Your task to perform on an android device: Search for macbook pro on costco, select the first entry, and add it to the cart. Image 0: 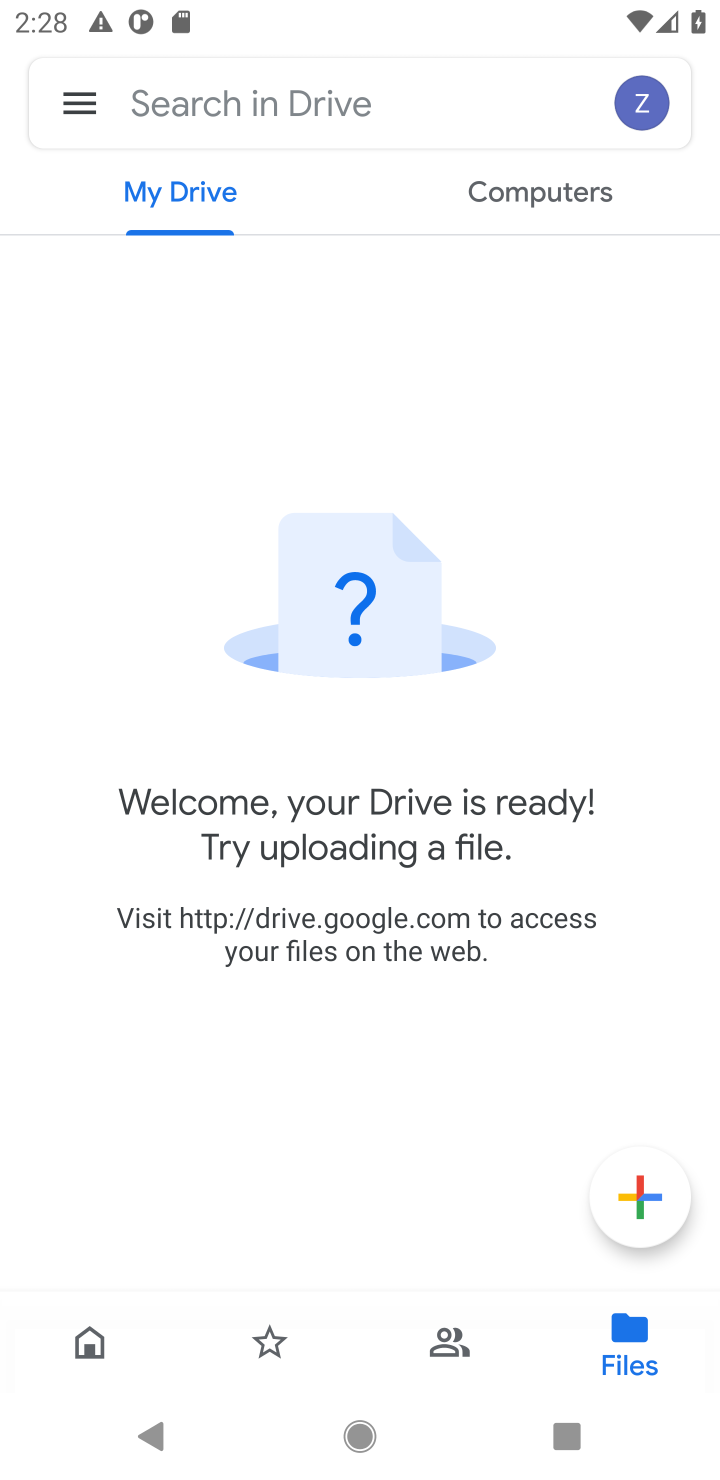
Step 0: press home button
Your task to perform on an android device: Search for macbook pro on costco, select the first entry, and add it to the cart. Image 1: 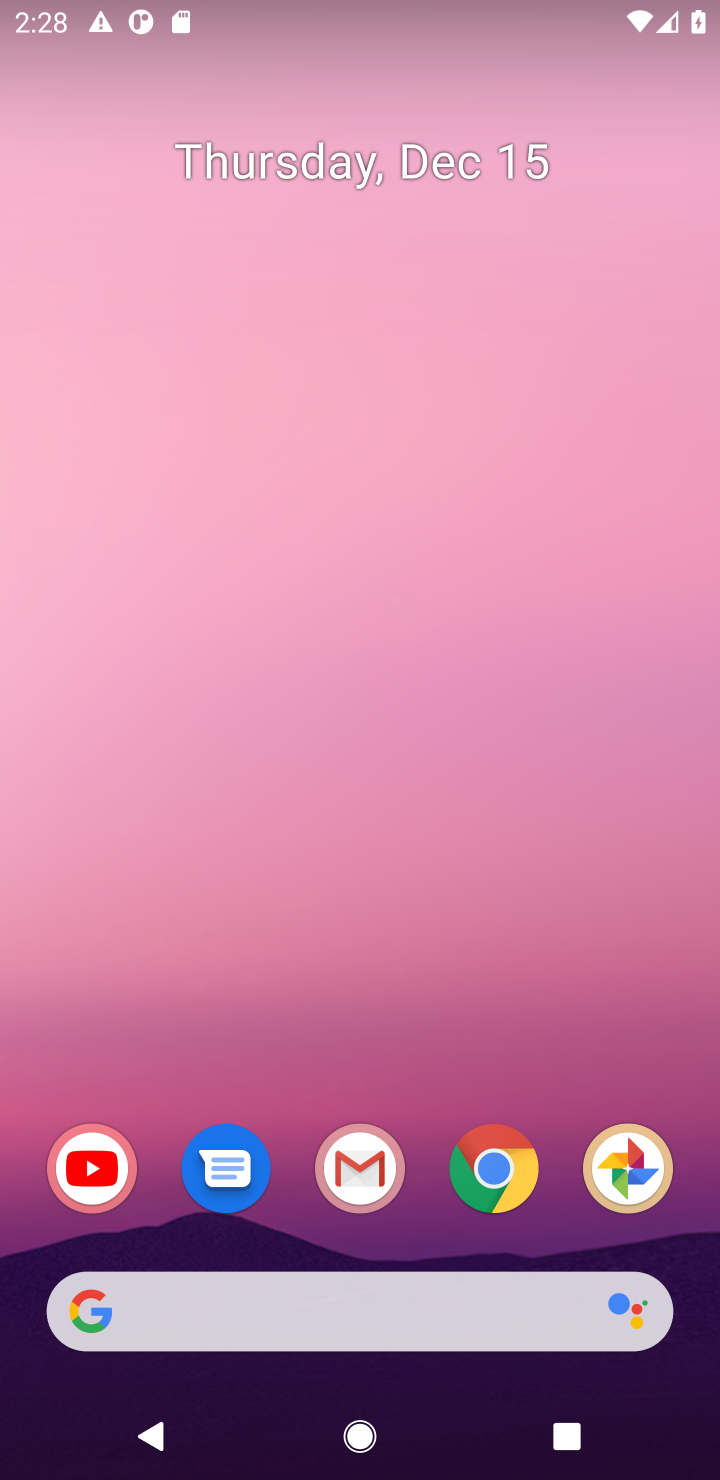
Step 1: click (497, 1159)
Your task to perform on an android device: Search for macbook pro on costco, select the first entry, and add it to the cart. Image 2: 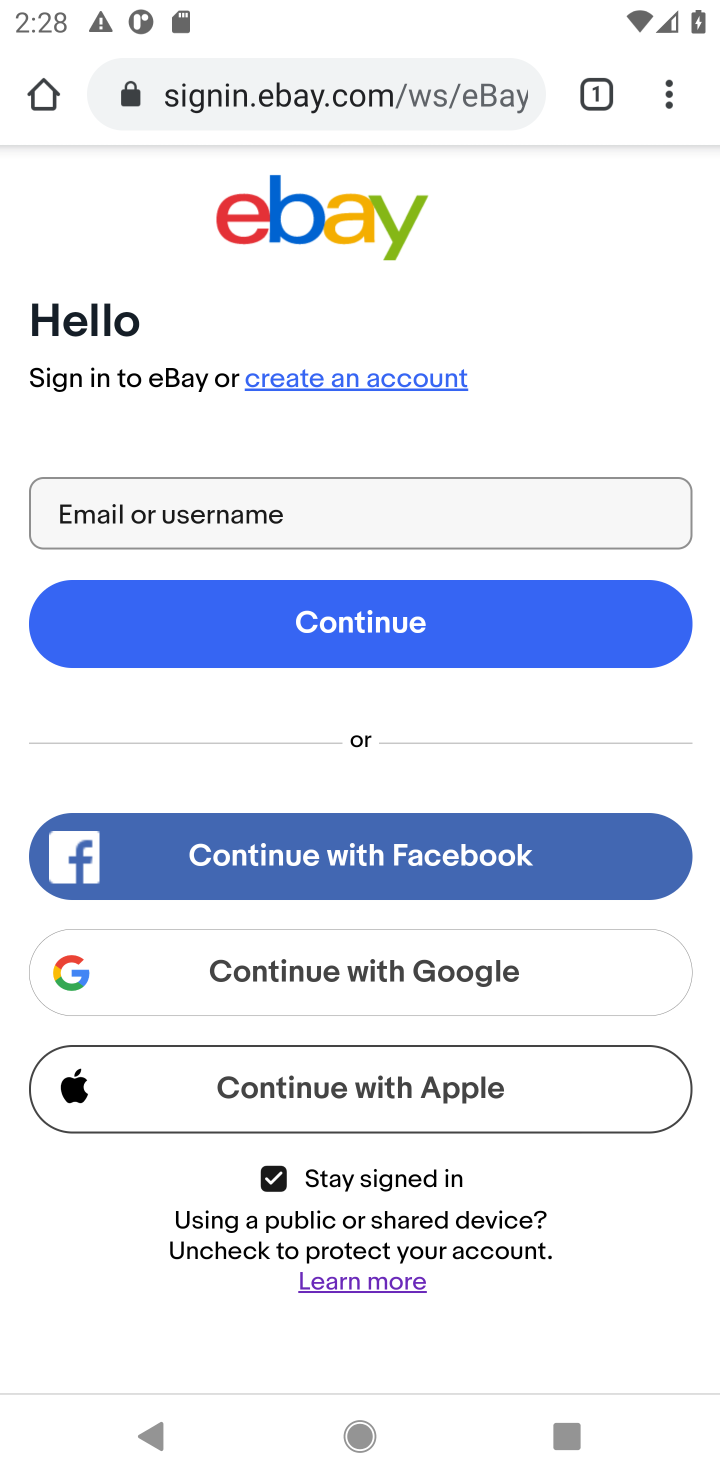
Step 2: click (418, 98)
Your task to perform on an android device: Search for macbook pro on costco, select the first entry, and add it to the cart. Image 3: 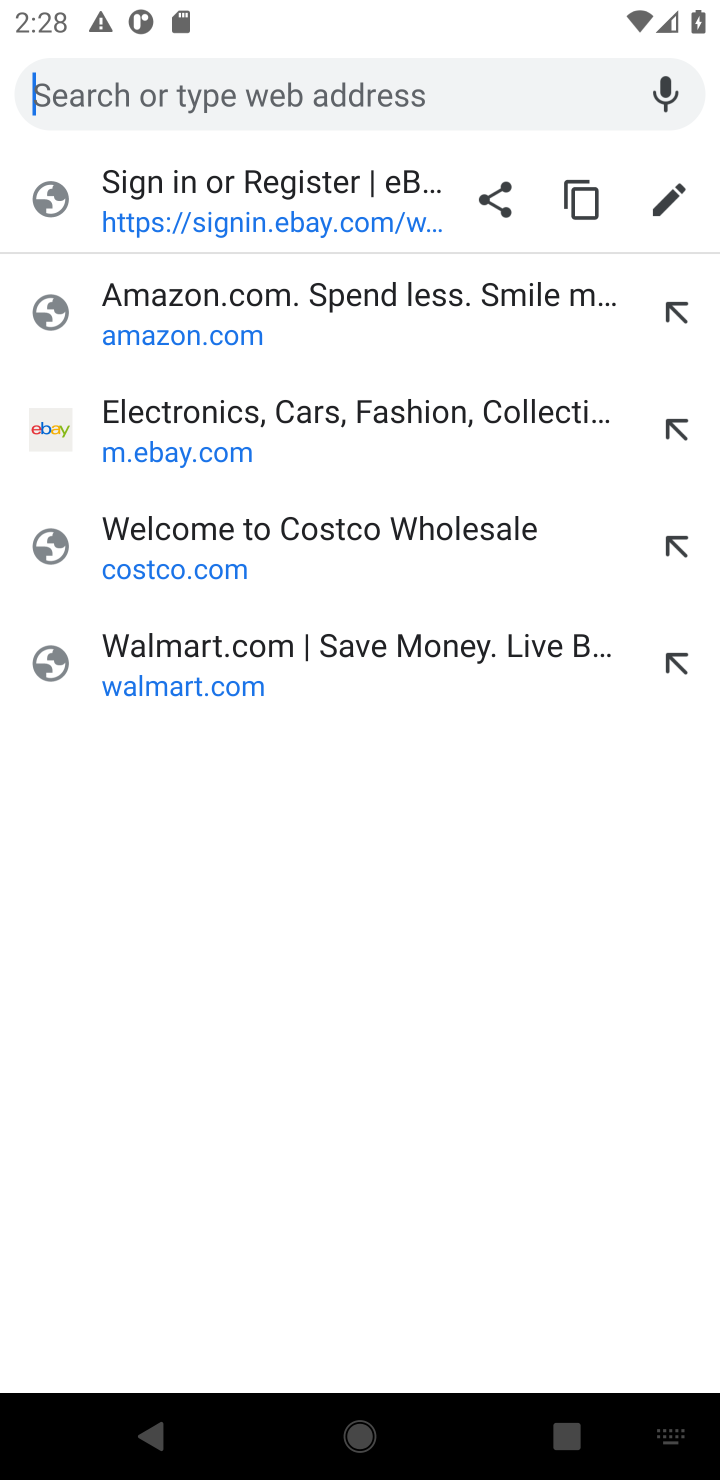
Step 3: click (343, 532)
Your task to perform on an android device: Search for macbook pro on costco, select the first entry, and add it to the cart. Image 4: 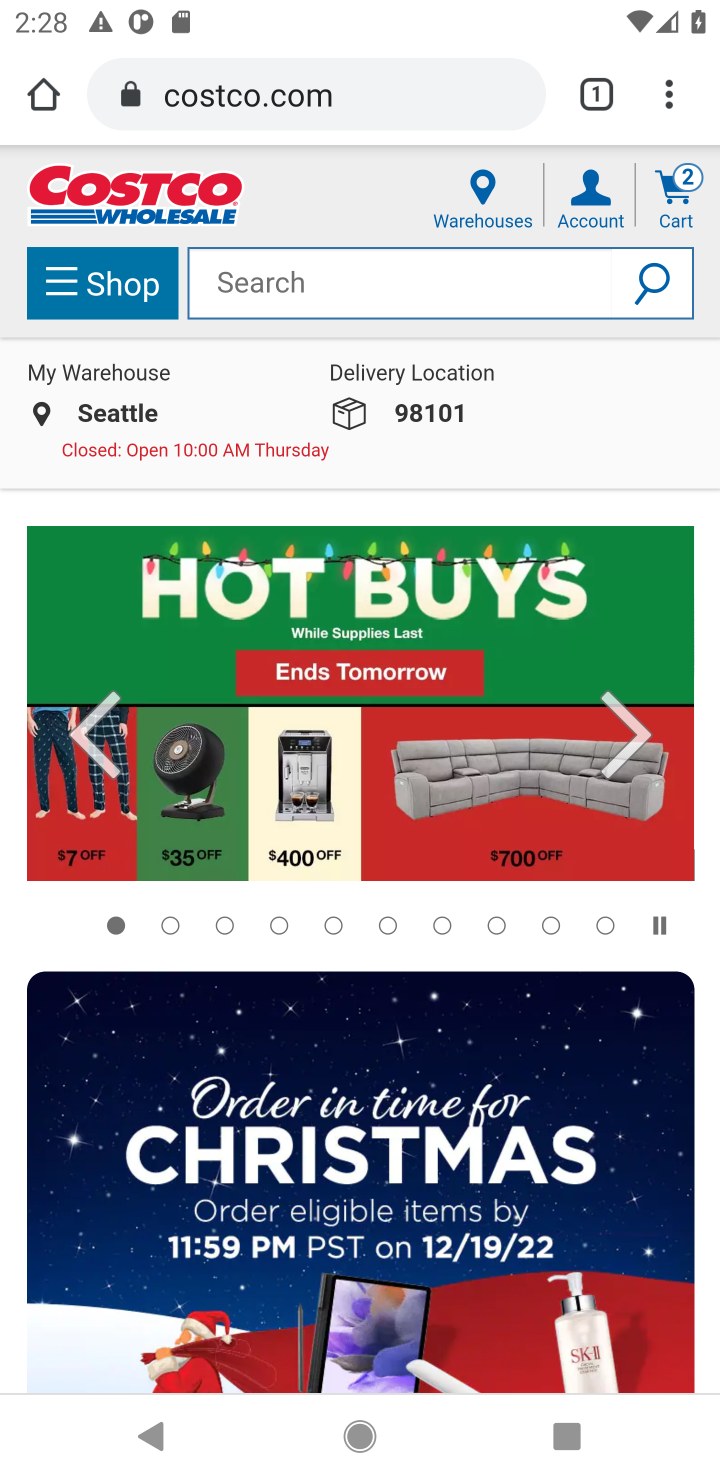
Step 4: click (490, 300)
Your task to perform on an android device: Search for macbook pro on costco, select the first entry, and add it to the cart. Image 5: 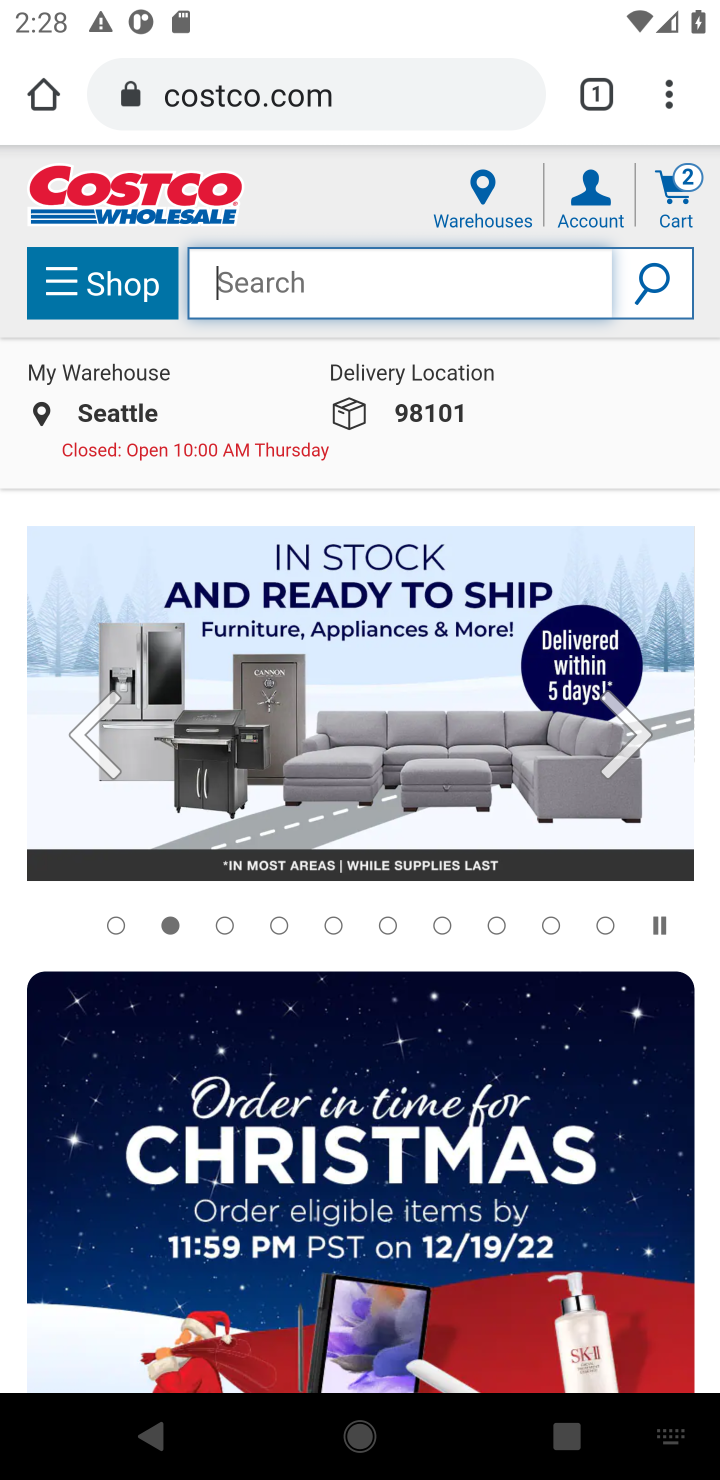
Step 5: press enter
Your task to perform on an android device: Search for macbook pro on costco, select the first entry, and add it to the cart. Image 6: 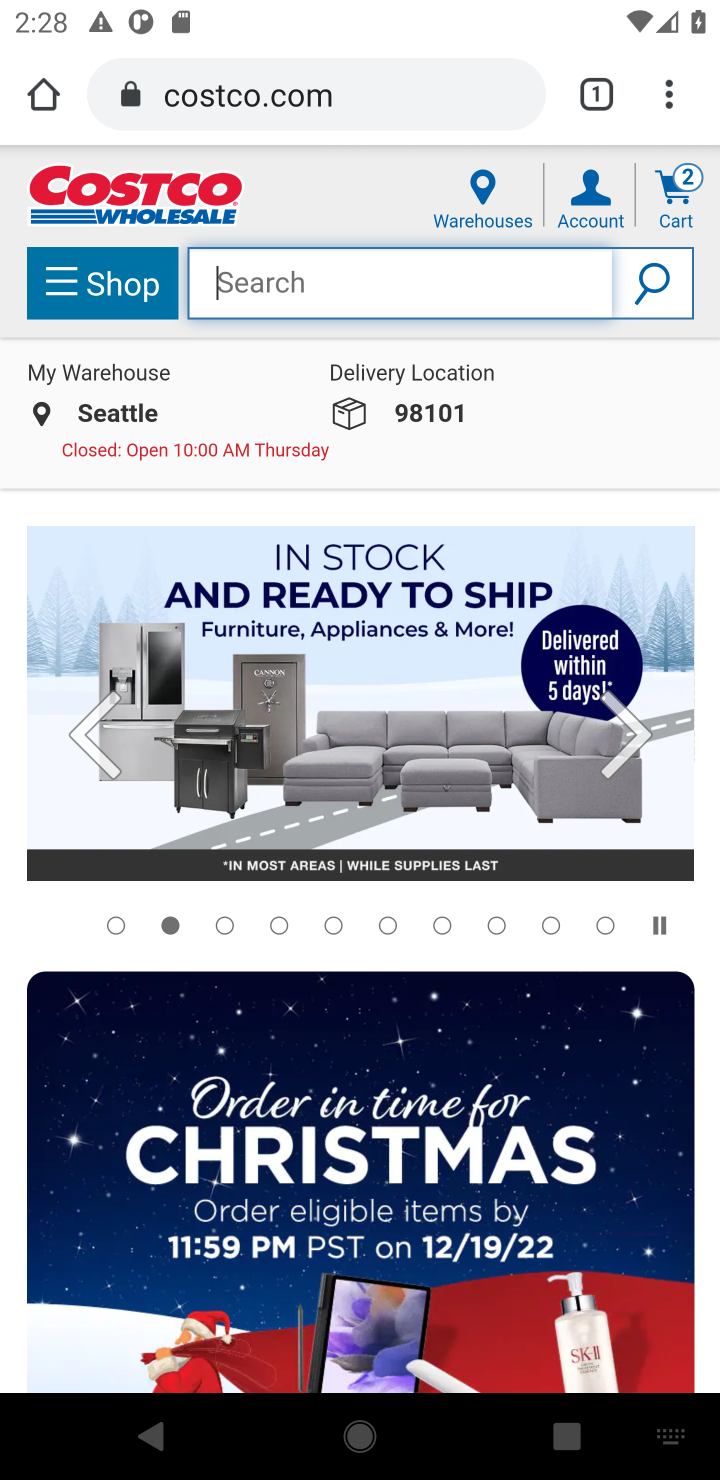
Step 6: type "macbook pro"
Your task to perform on an android device: Search for macbook pro on costco, select the first entry, and add it to the cart. Image 7: 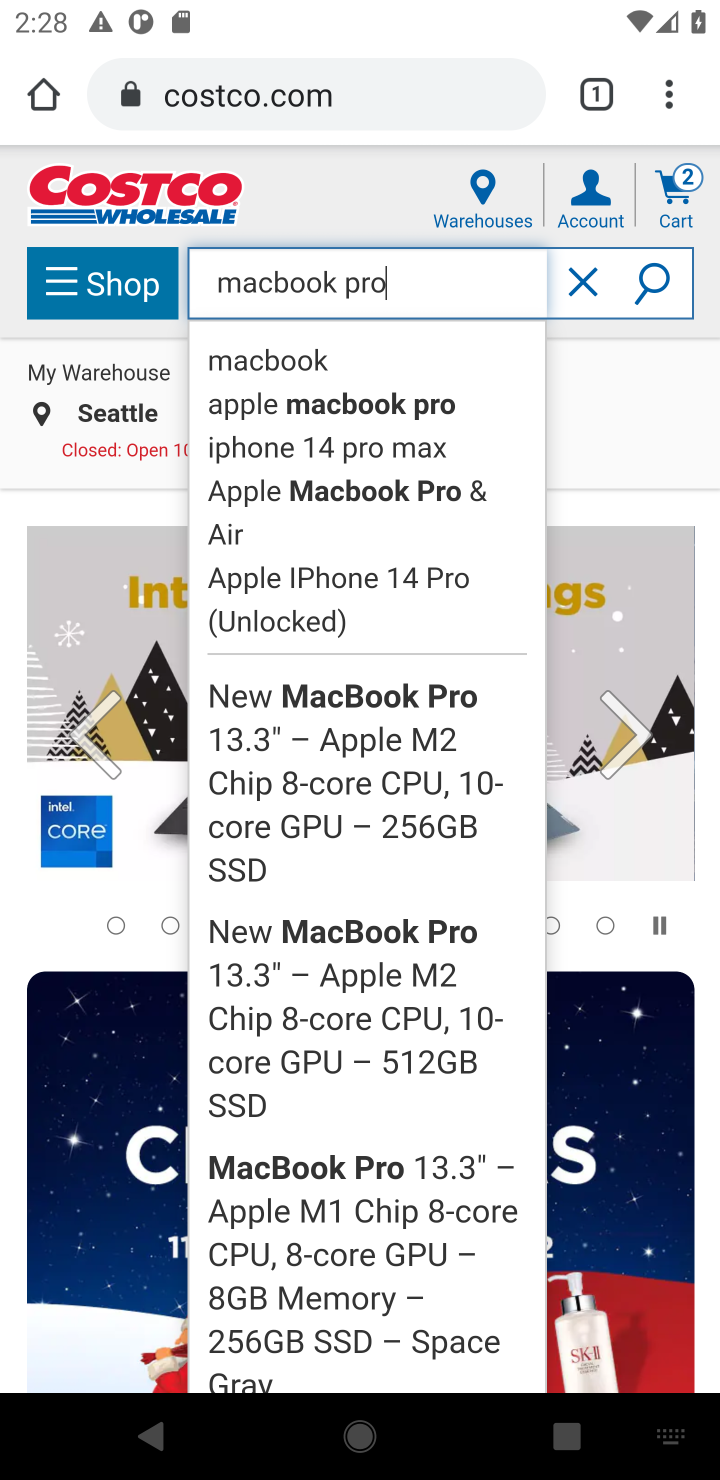
Step 7: click (664, 279)
Your task to perform on an android device: Search for macbook pro on costco, select the first entry, and add it to the cart. Image 8: 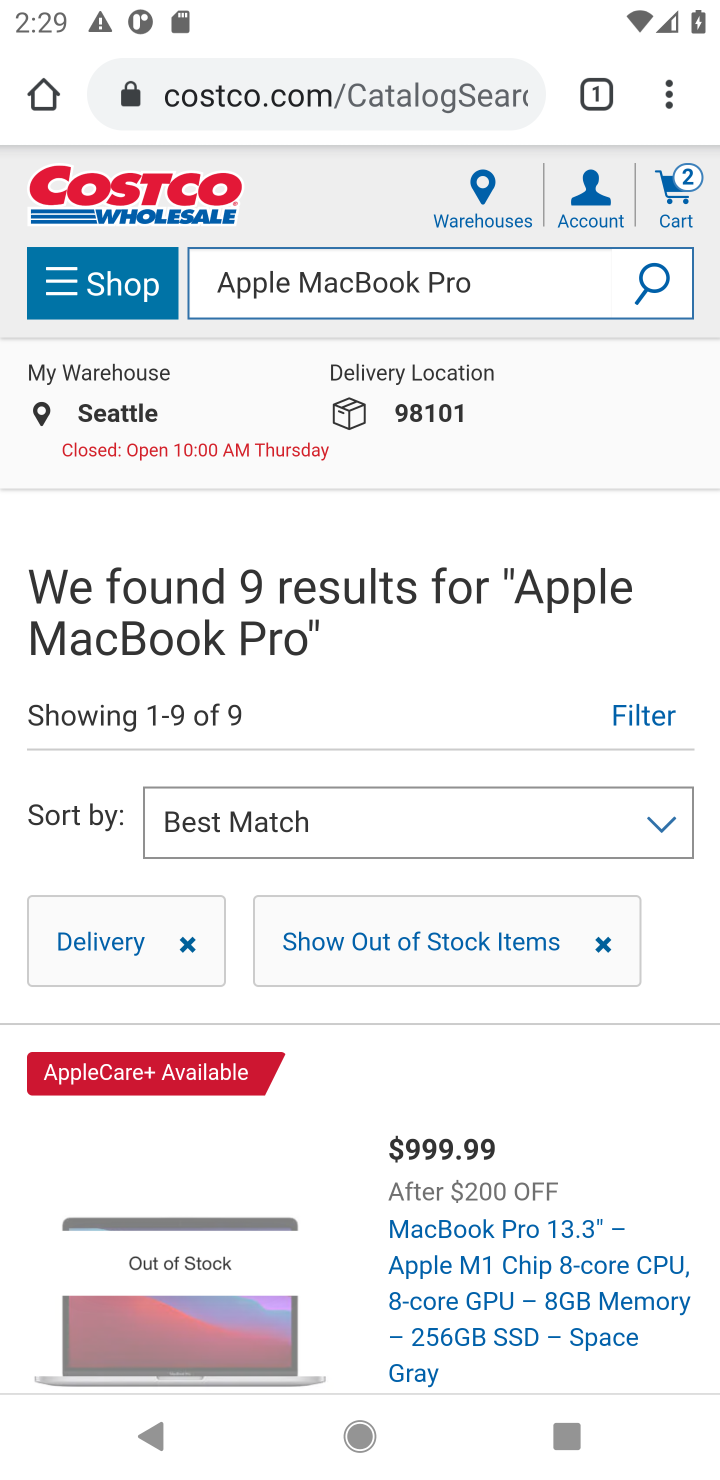
Step 8: click (163, 1327)
Your task to perform on an android device: Search for macbook pro on costco, select the first entry, and add it to the cart. Image 9: 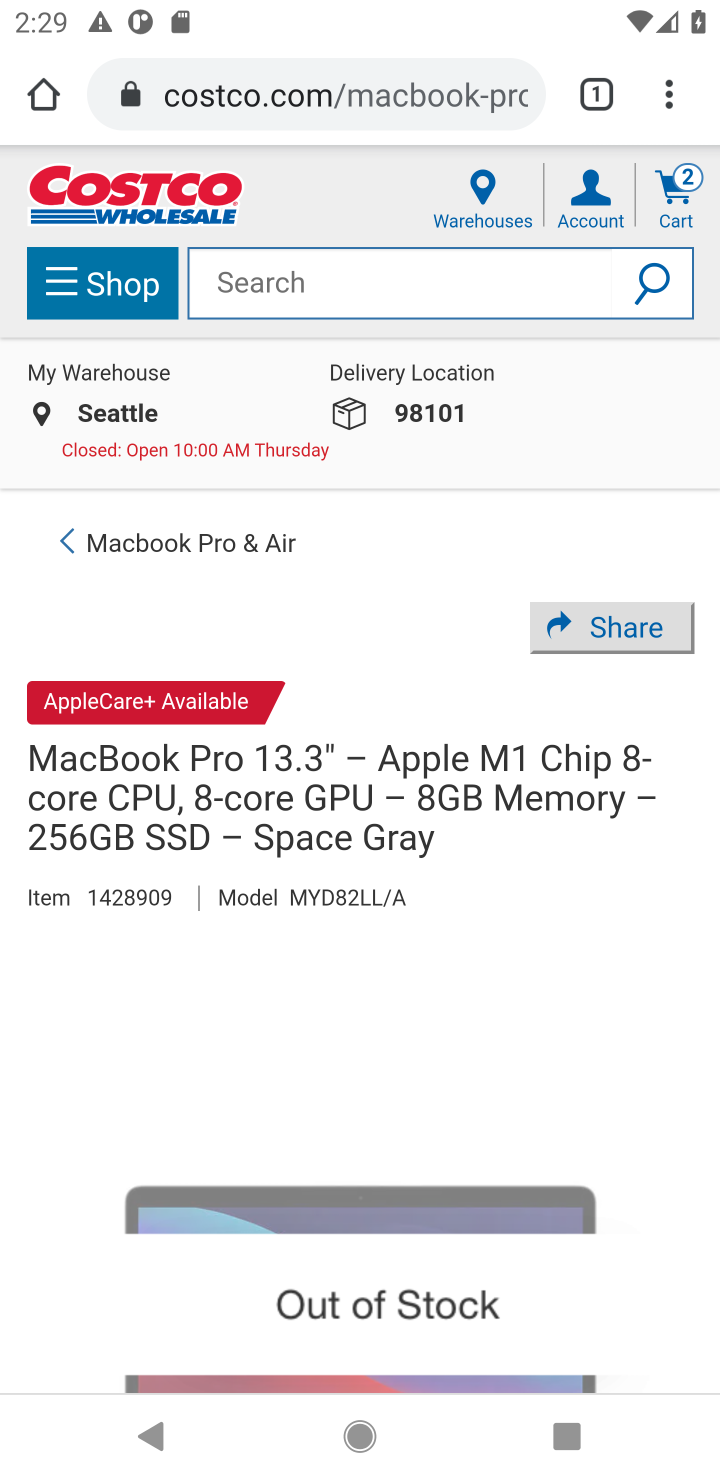
Step 9: press back button
Your task to perform on an android device: Search for macbook pro on costco, select the first entry, and add it to the cart. Image 10: 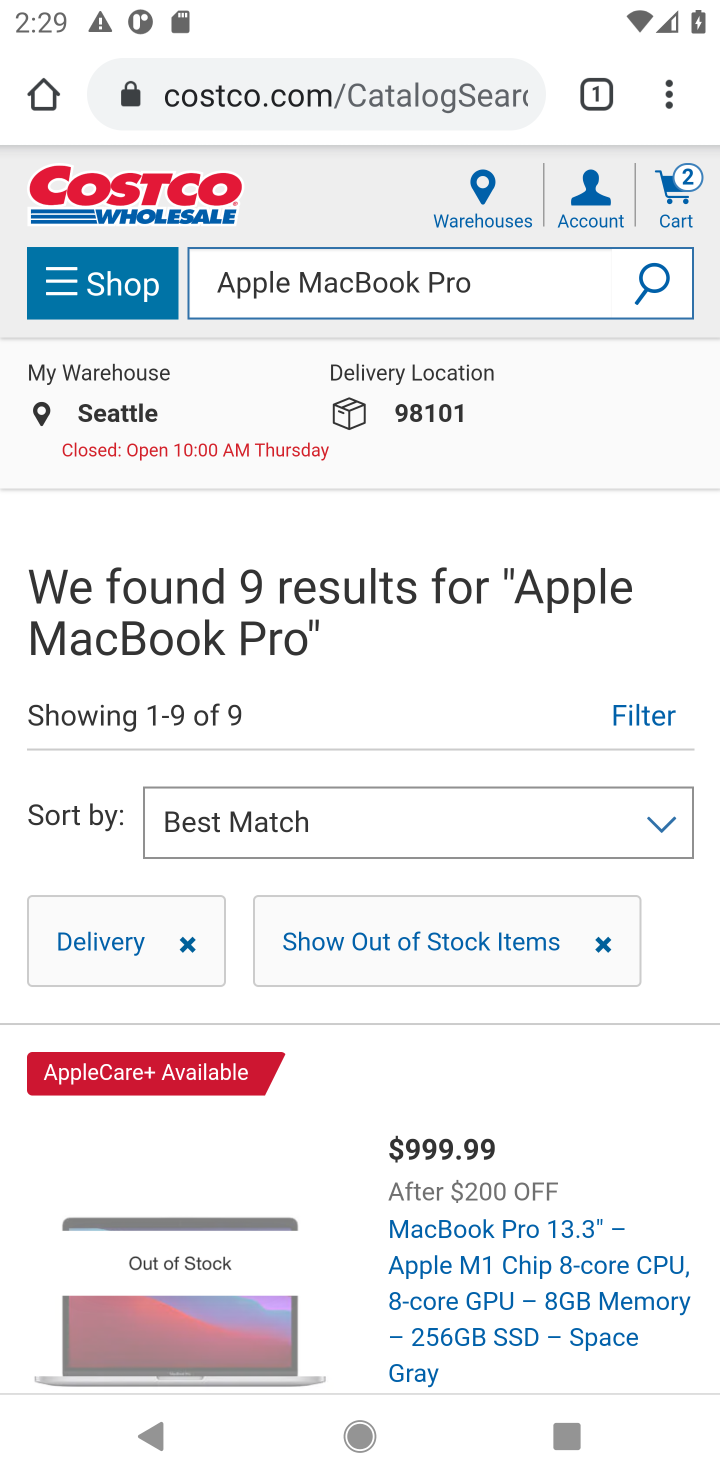
Step 10: drag from (386, 1175) to (407, 790)
Your task to perform on an android device: Search for macbook pro on costco, select the first entry, and add it to the cart. Image 11: 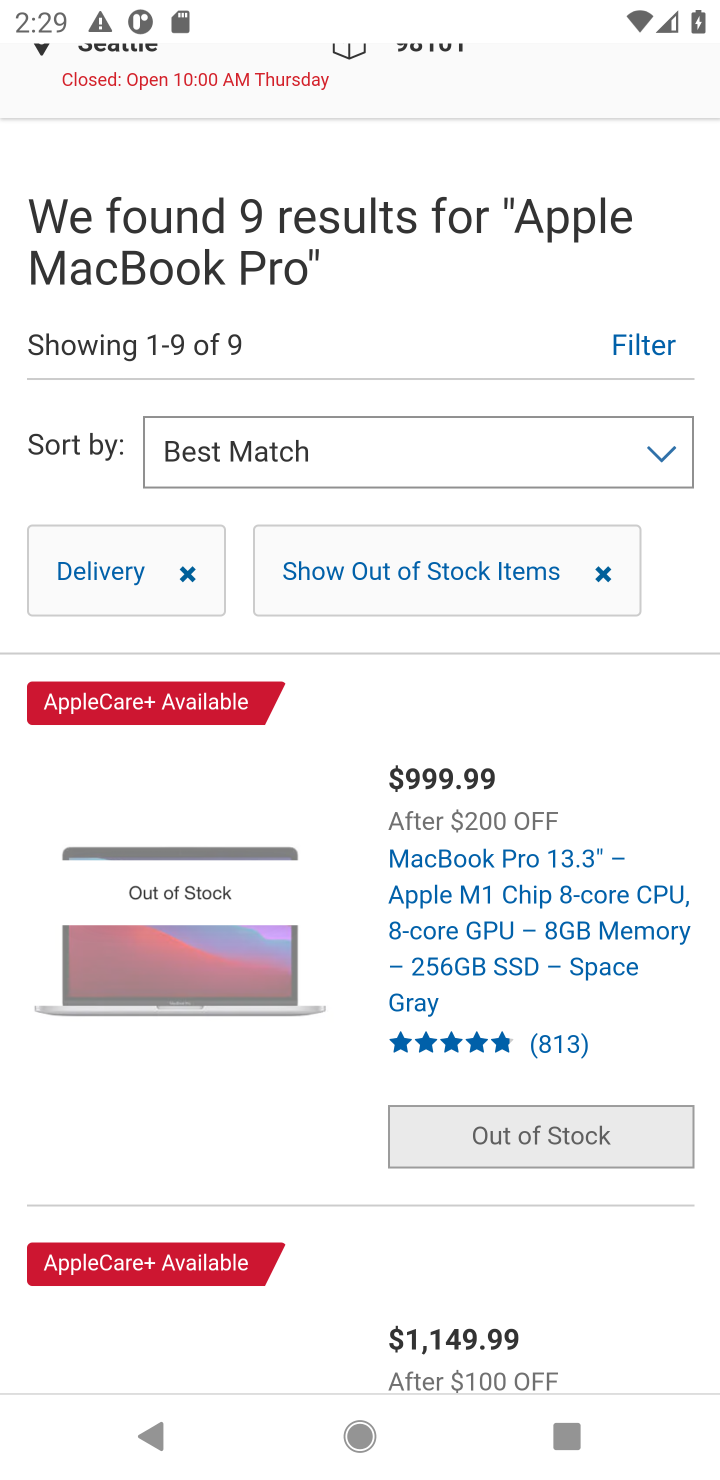
Step 11: drag from (390, 1211) to (316, 508)
Your task to perform on an android device: Search for macbook pro on costco, select the first entry, and add it to the cart. Image 12: 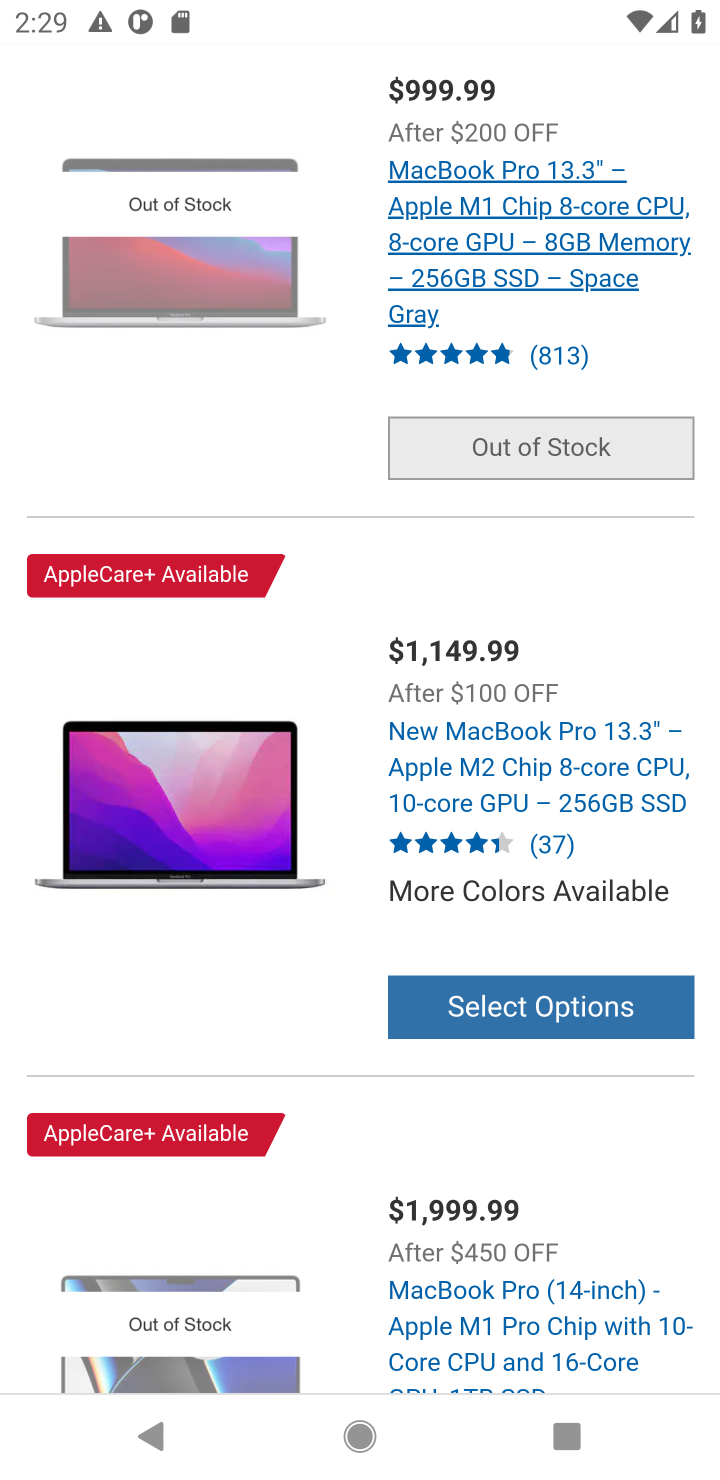
Step 12: click (223, 825)
Your task to perform on an android device: Search for macbook pro on costco, select the first entry, and add it to the cart. Image 13: 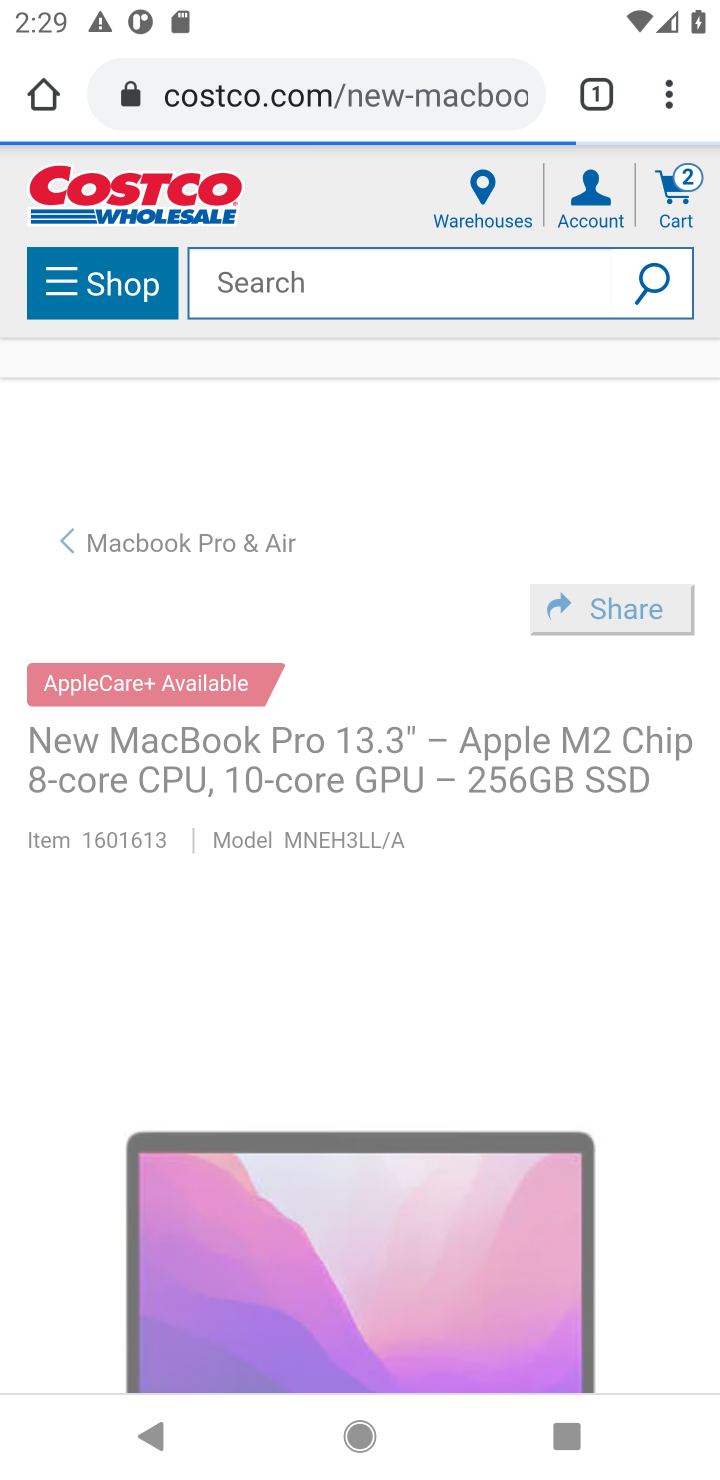
Step 13: drag from (471, 1151) to (173, 339)
Your task to perform on an android device: Search for macbook pro on costco, select the first entry, and add it to the cart. Image 14: 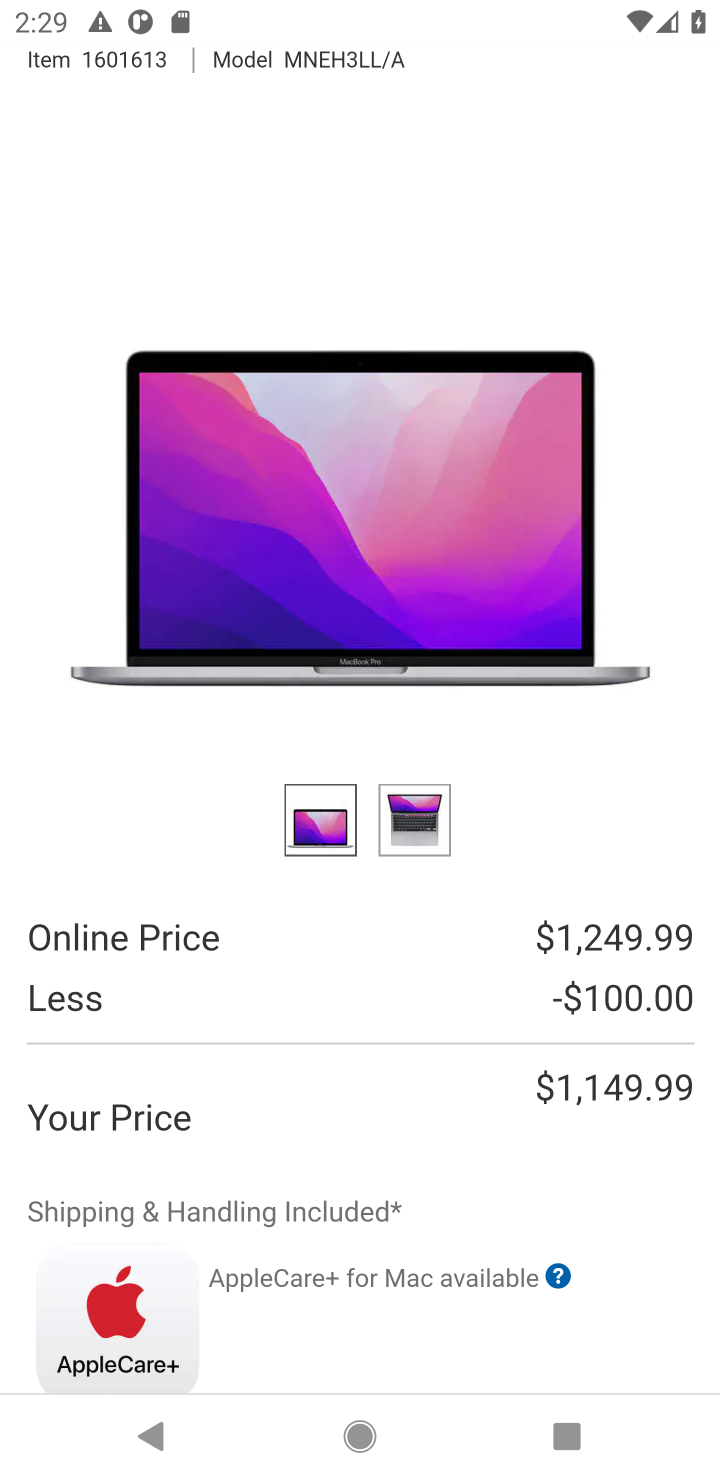
Step 14: drag from (238, 772) to (90, 331)
Your task to perform on an android device: Search for macbook pro on costco, select the first entry, and add it to the cart. Image 15: 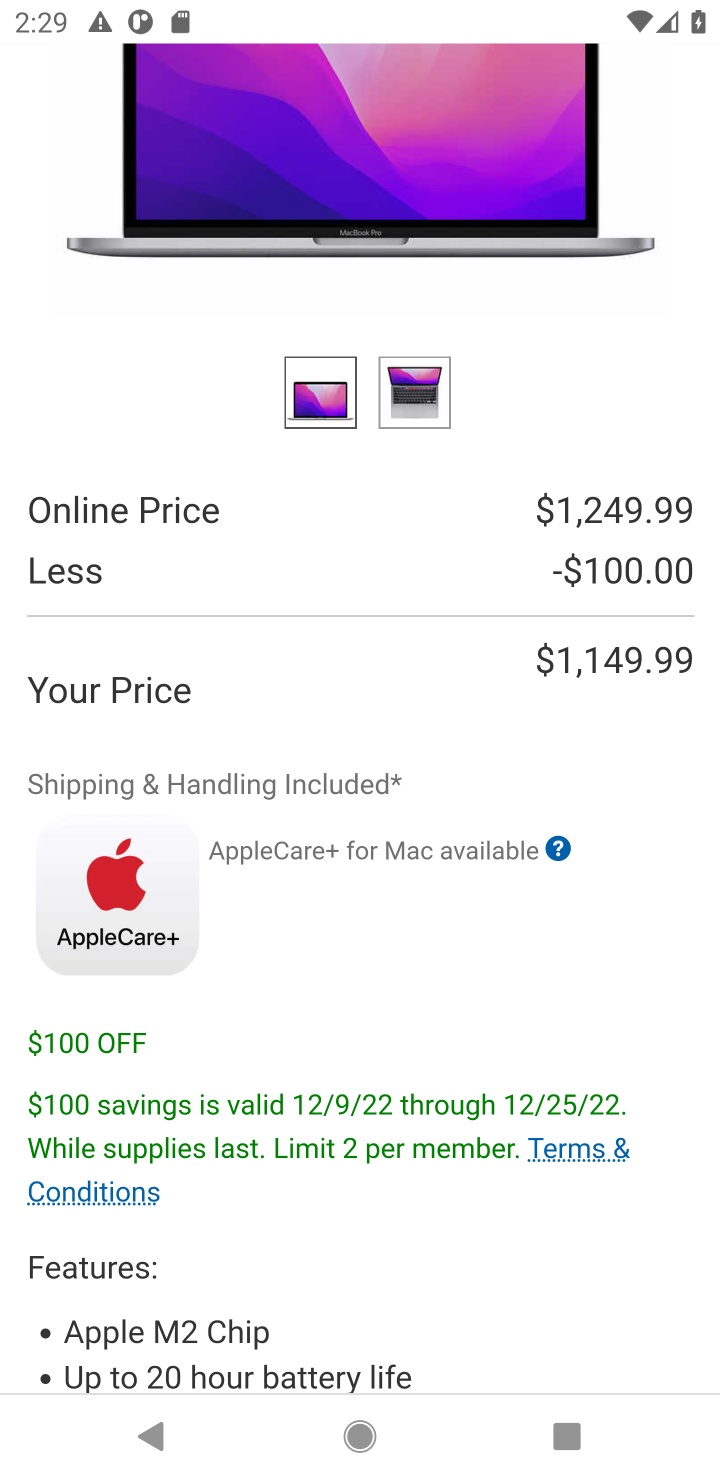
Step 15: drag from (464, 989) to (366, 460)
Your task to perform on an android device: Search for macbook pro on costco, select the first entry, and add it to the cart. Image 16: 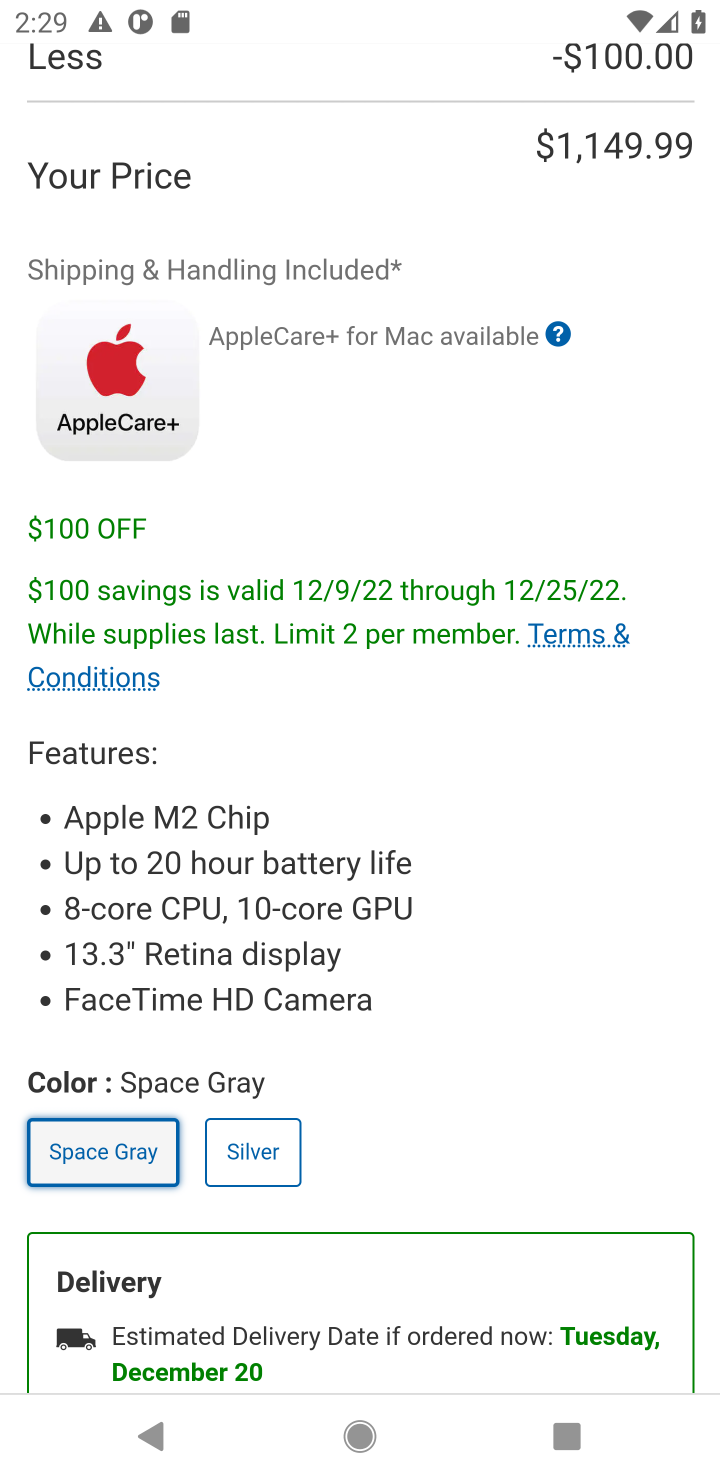
Step 16: drag from (569, 1001) to (358, 394)
Your task to perform on an android device: Search for macbook pro on costco, select the first entry, and add it to the cart. Image 17: 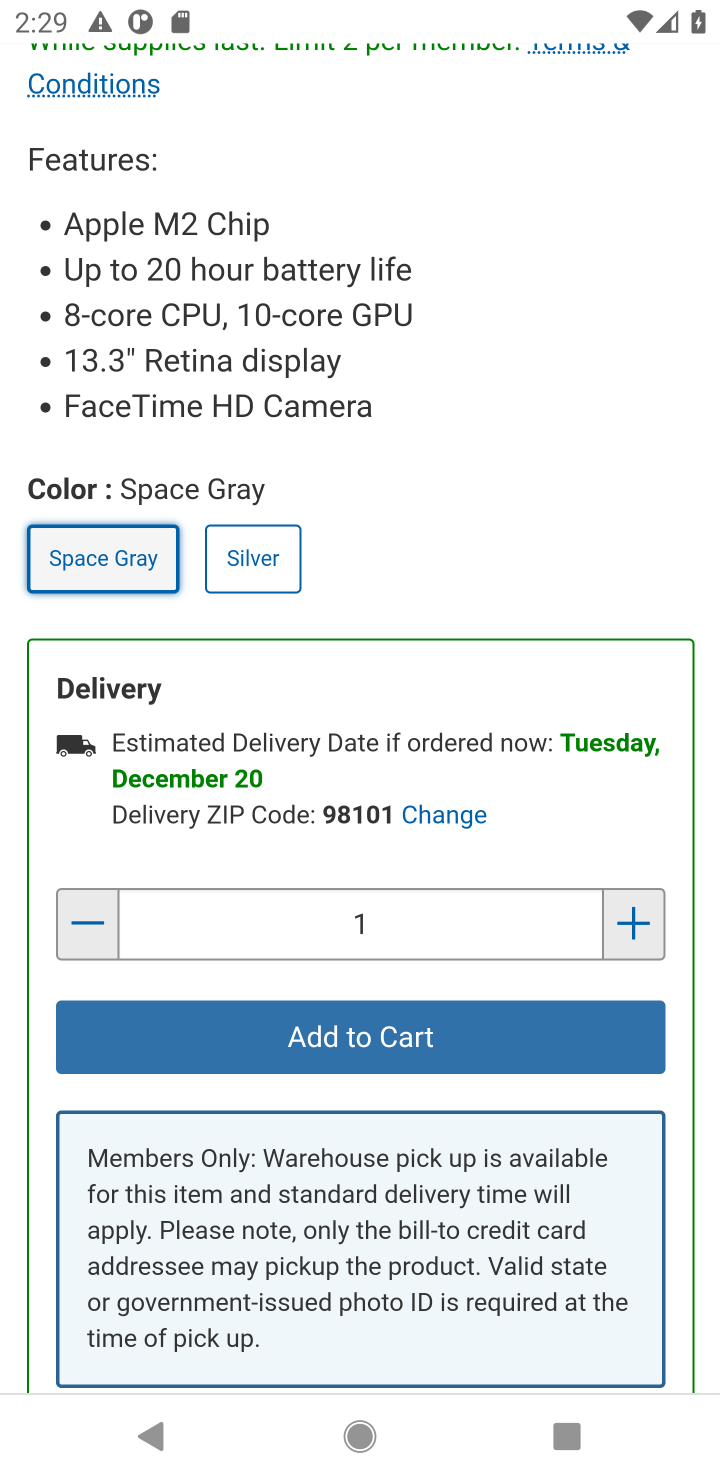
Step 17: click (387, 1035)
Your task to perform on an android device: Search for macbook pro on costco, select the first entry, and add it to the cart. Image 18: 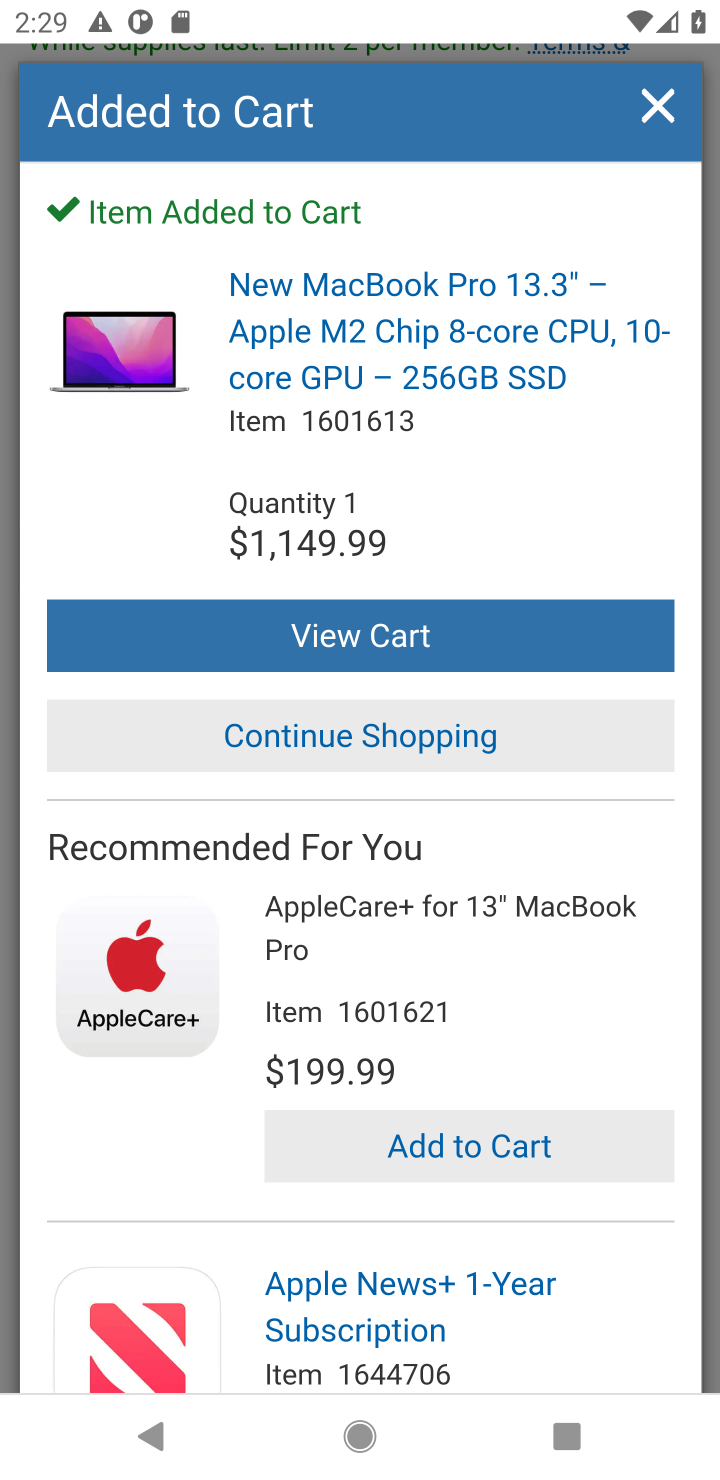
Step 18: click (401, 630)
Your task to perform on an android device: Search for macbook pro on costco, select the first entry, and add it to the cart. Image 19: 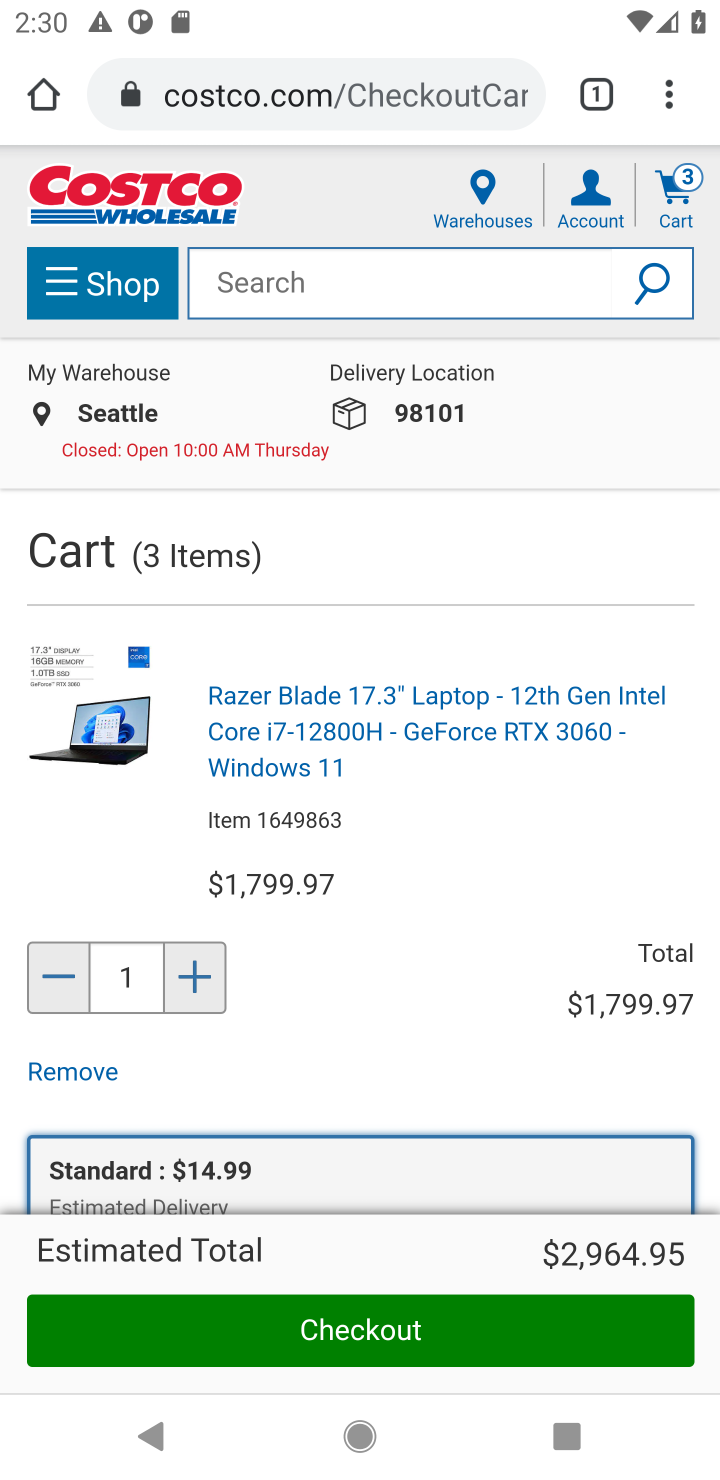
Step 19: task complete